Your task to perform on an android device: uninstall "ColorNote Notepad Notes" Image 0: 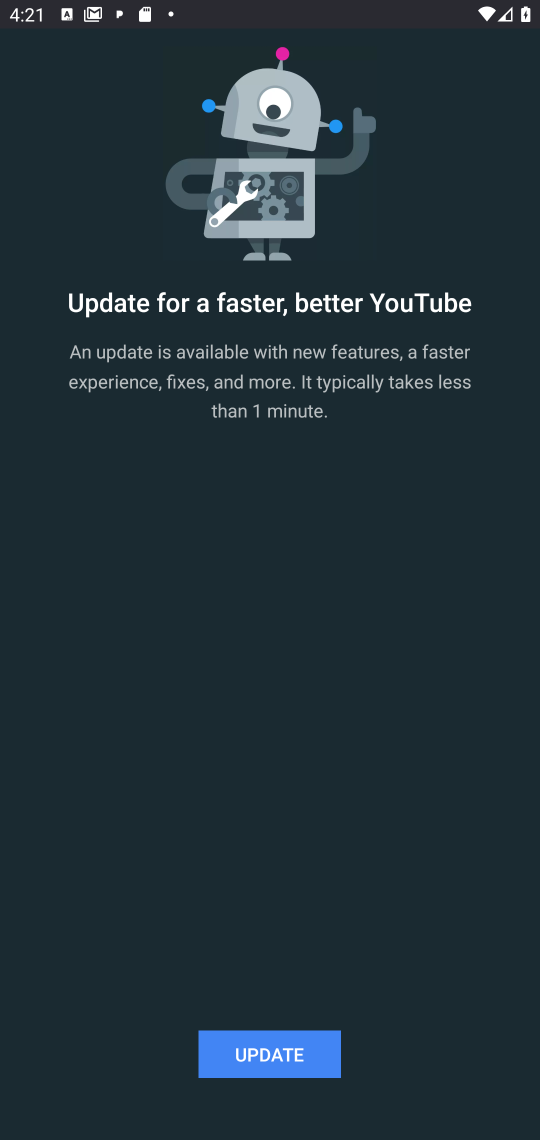
Step 0: press home button
Your task to perform on an android device: uninstall "ColorNote Notepad Notes" Image 1: 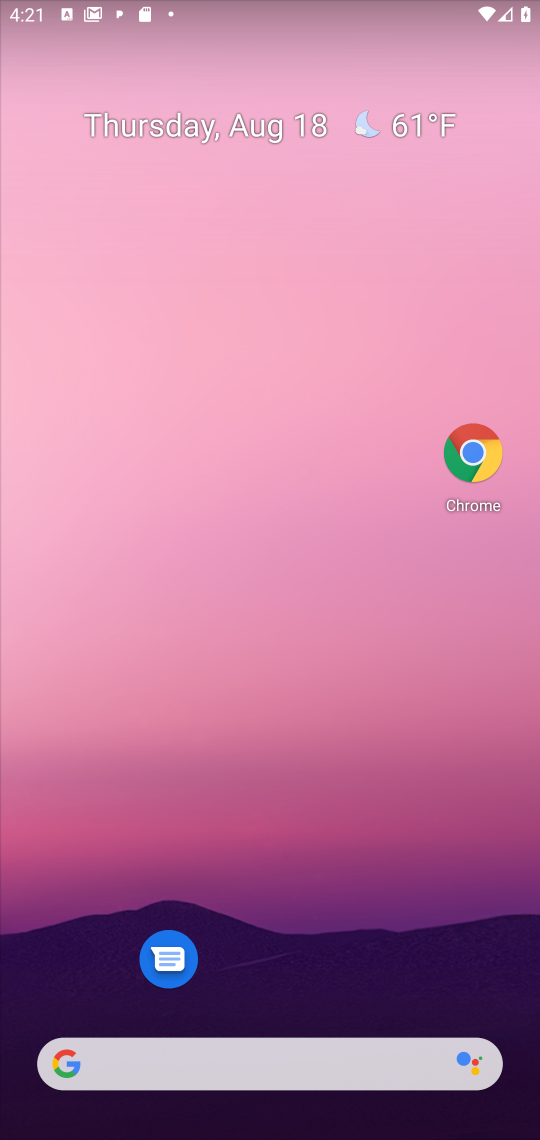
Step 1: task complete